Your task to perform on an android device: Go to internet settings Image 0: 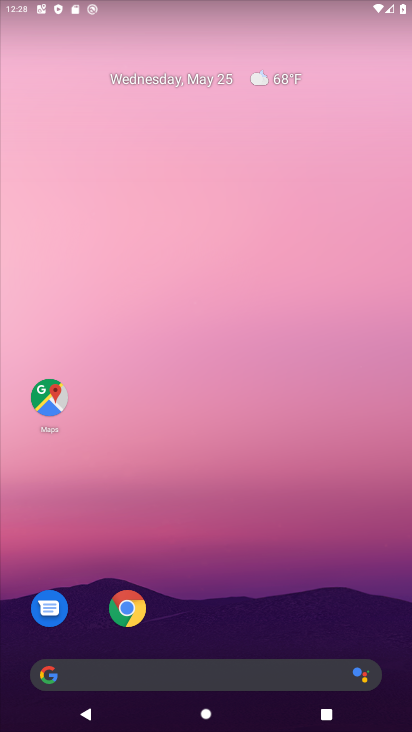
Step 0: drag from (277, 631) to (306, 1)
Your task to perform on an android device: Go to internet settings Image 1: 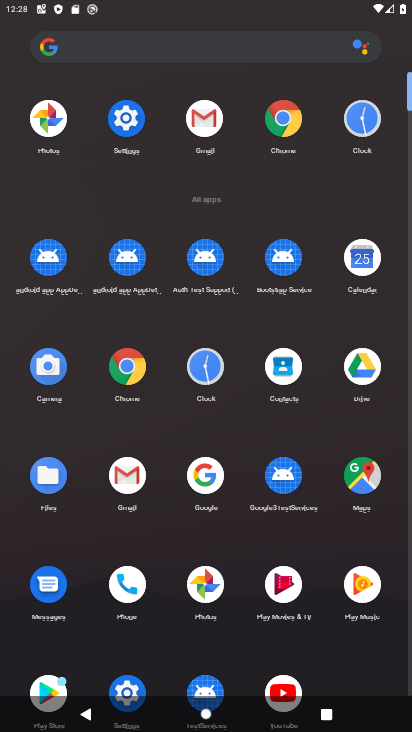
Step 1: click (143, 118)
Your task to perform on an android device: Go to internet settings Image 2: 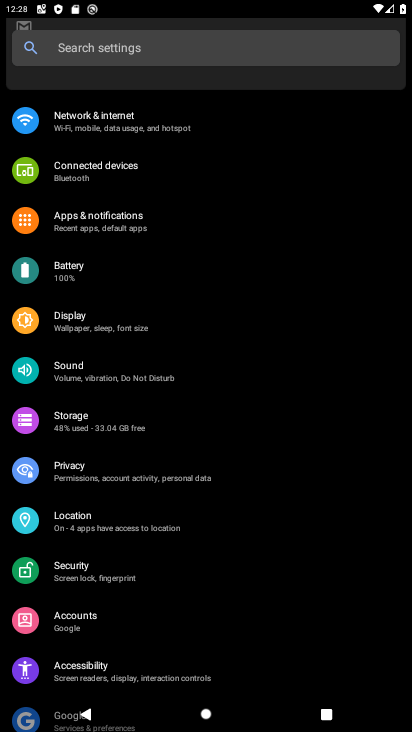
Step 2: click (142, 121)
Your task to perform on an android device: Go to internet settings Image 3: 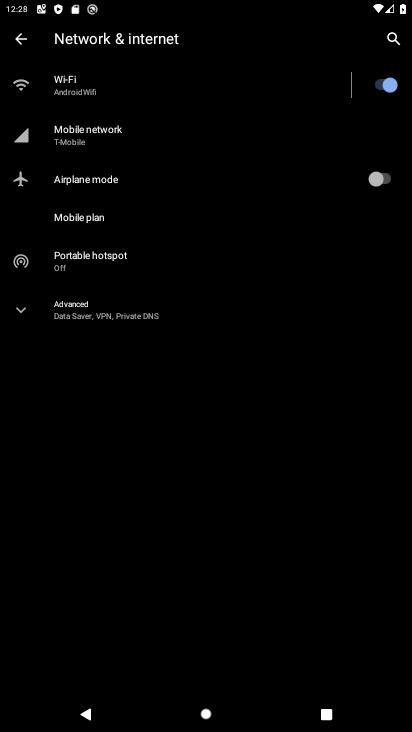
Step 3: task complete